Your task to perform on an android device: turn notification dots on Image 0: 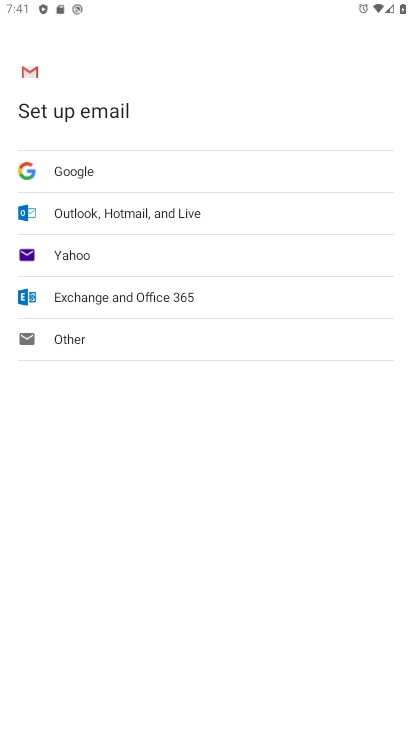
Step 0: press home button
Your task to perform on an android device: turn notification dots on Image 1: 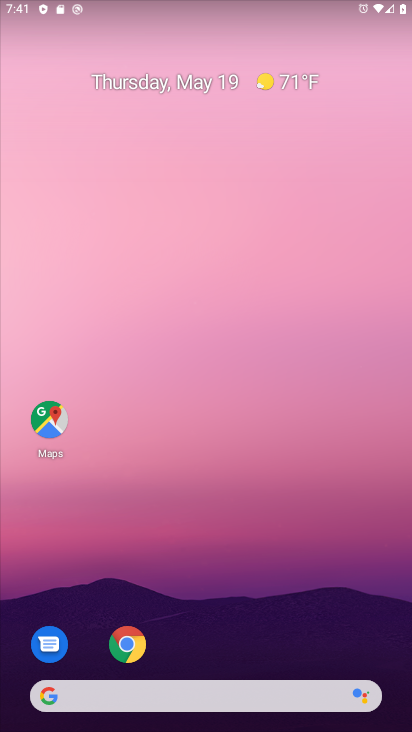
Step 1: drag from (168, 610) to (182, 342)
Your task to perform on an android device: turn notification dots on Image 2: 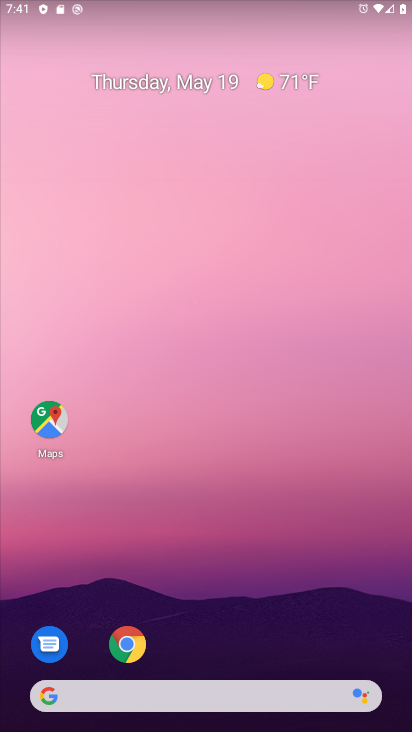
Step 2: drag from (219, 698) to (245, 208)
Your task to perform on an android device: turn notification dots on Image 3: 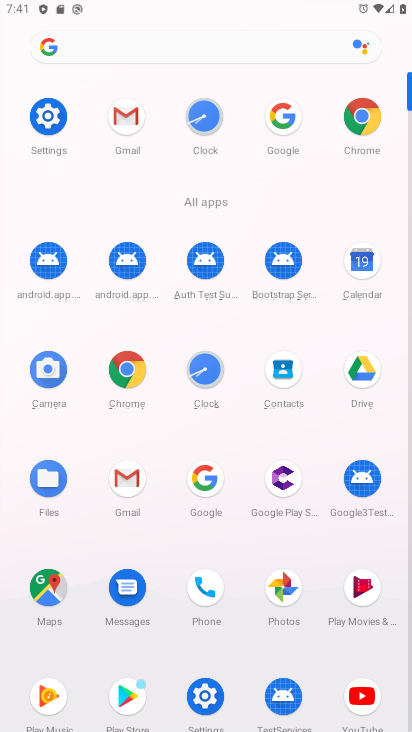
Step 3: click (59, 118)
Your task to perform on an android device: turn notification dots on Image 4: 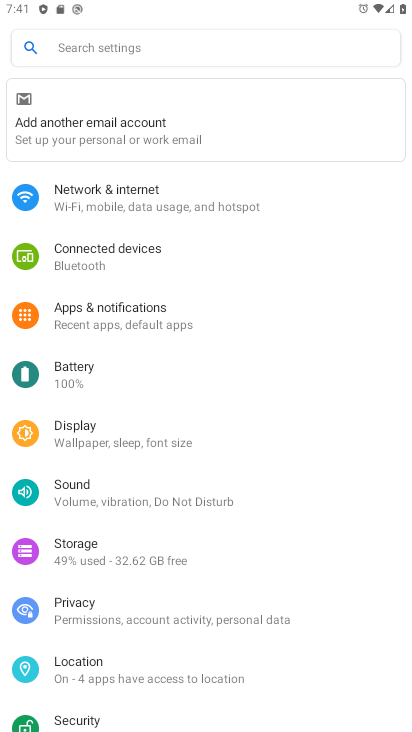
Step 4: click (103, 313)
Your task to perform on an android device: turn notification dots on Image 5: 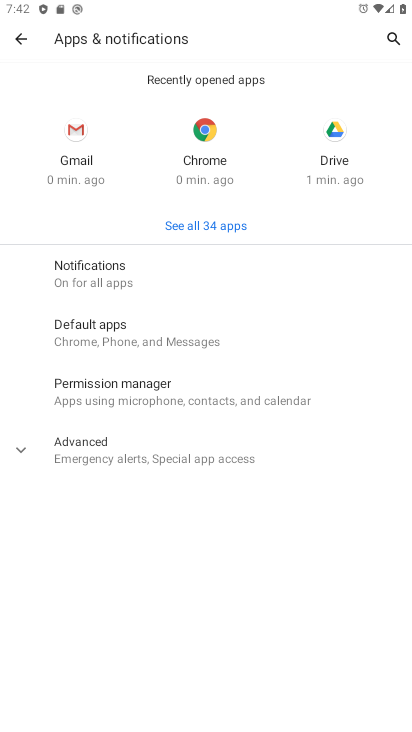
Step 5: click (84, 289)
Your task to perform on an android device: turn notification dots on Image 6: 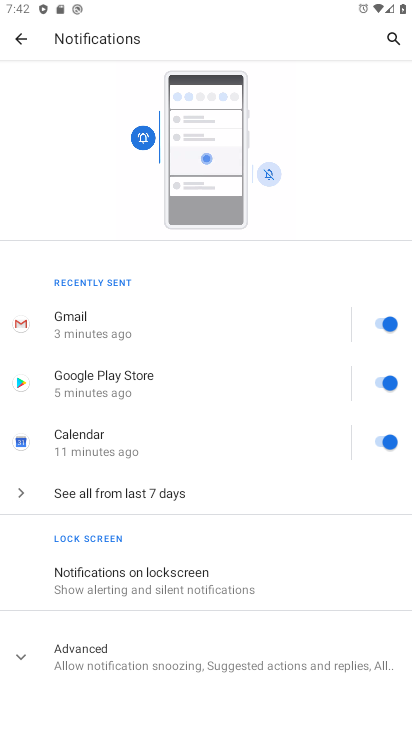
Step 6: click (149, 643)
Your task to perform on an android device: turn notification dots on Image 7: 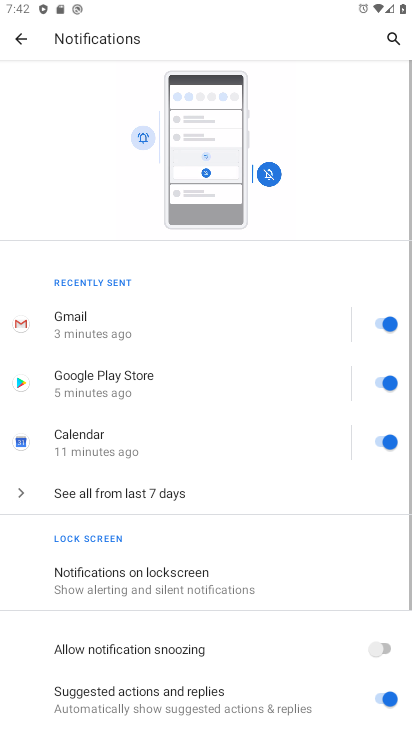
Step 7: task complete